Your task to perform on an android device: turn on notifications settings in the gmail app Image 0: 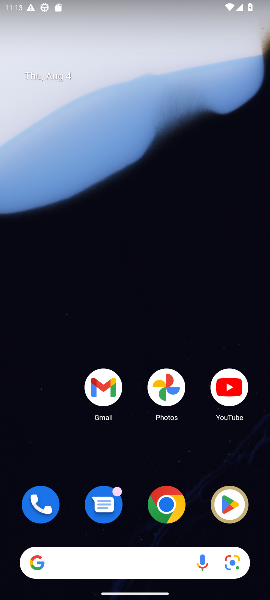
Step 0: click (97, 384)
Your task to perform on an android device: turn on notifications settings in the gmail app Image 1: 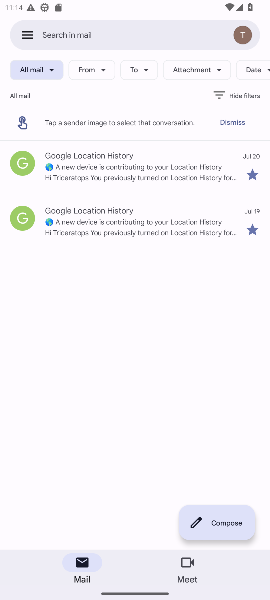
Step 1: click (23, 36)
Your task to perform on an android device: turn on notifications settings in the gmail app Image 2: 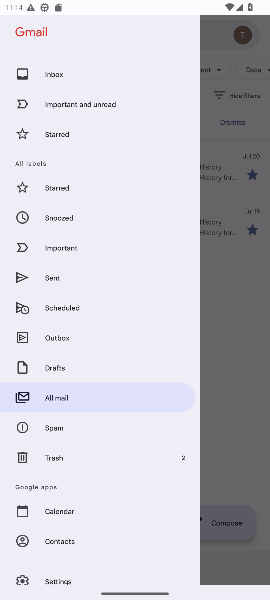
Step 2: click (47, 576)
Your task to perform on an android device: turn on notifications settings in the gmail app Image 3: 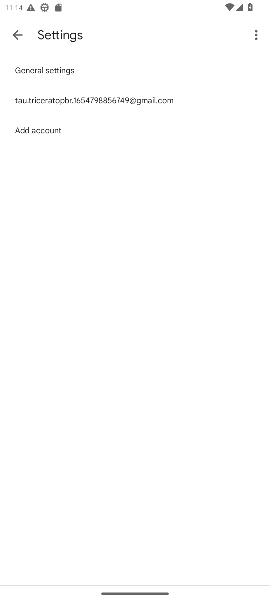
Step 3: click (155, 97)
Your task to perform on an android device: turn on notifications settings in the gmail app Image 4: 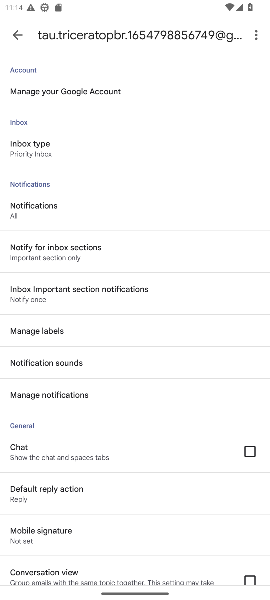
Step 4: click (53, 397)
Your task to perform on an android device: turn on notifications settings in the gmail app Image 5: 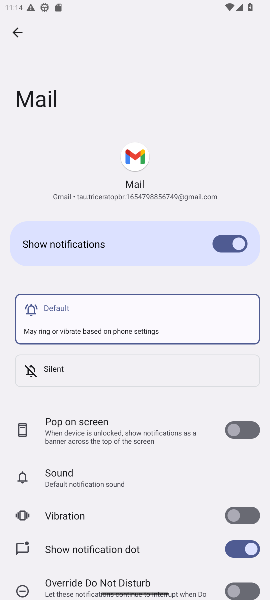
Step 5: task complete